Your task to perform on an android device: Search for razer huntsman on walmart.com, select the first entry, add it to the cart, then select checkout. Image 0: 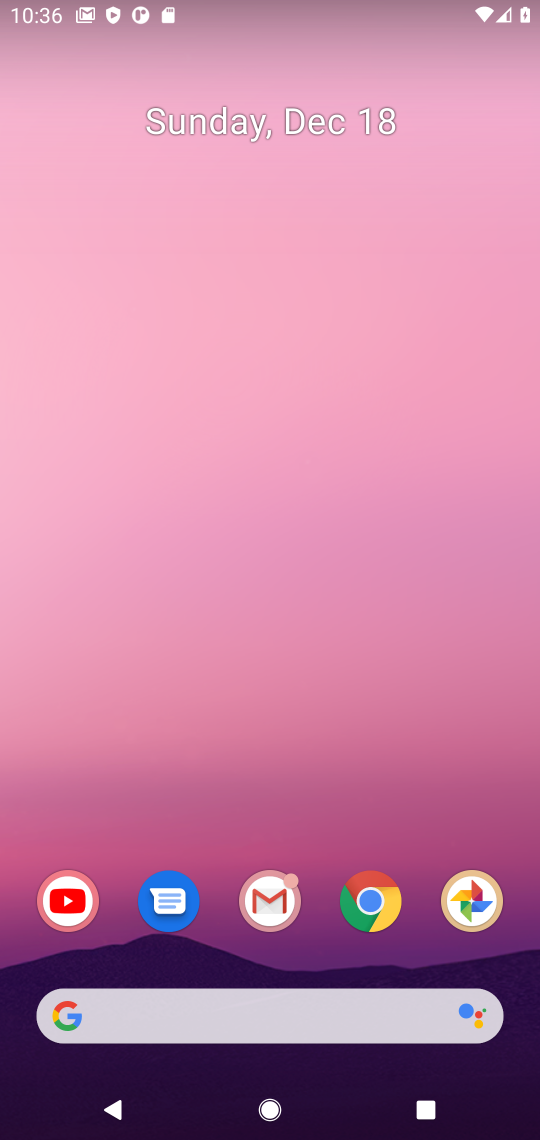
Step 0: click (358, 907)
Your task to perform on an android device: Search for razer huntsman on walmart.com, select the first entry, add it to the cart, then select checkout. Image 1: 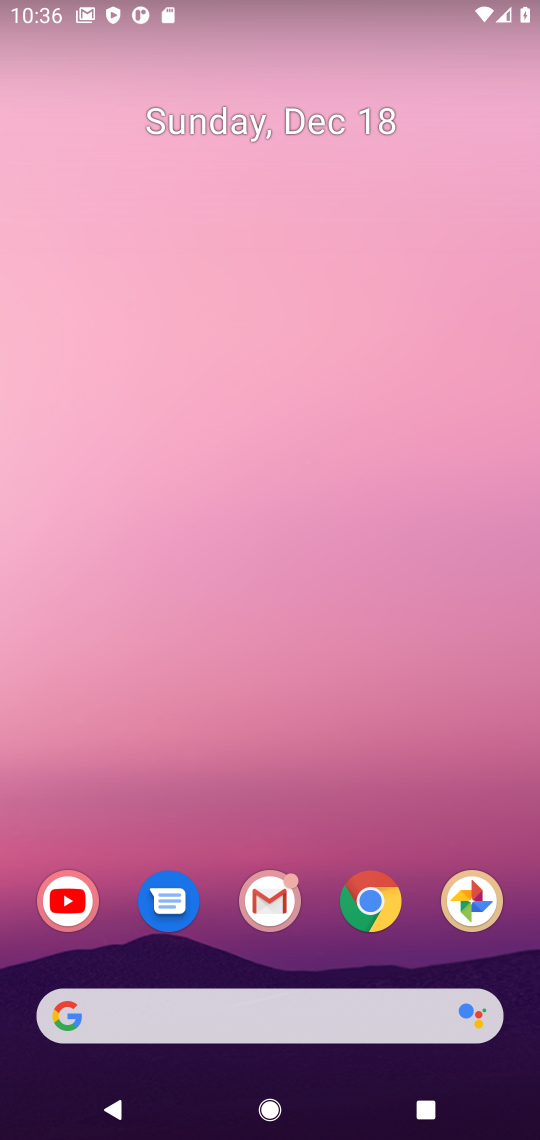
Step 1: click (358, 907)
Your task to perform on an android device: Search for razer huntsman on walmart.com, select the first entry, add it to the cart, then select checkout. Image 2: 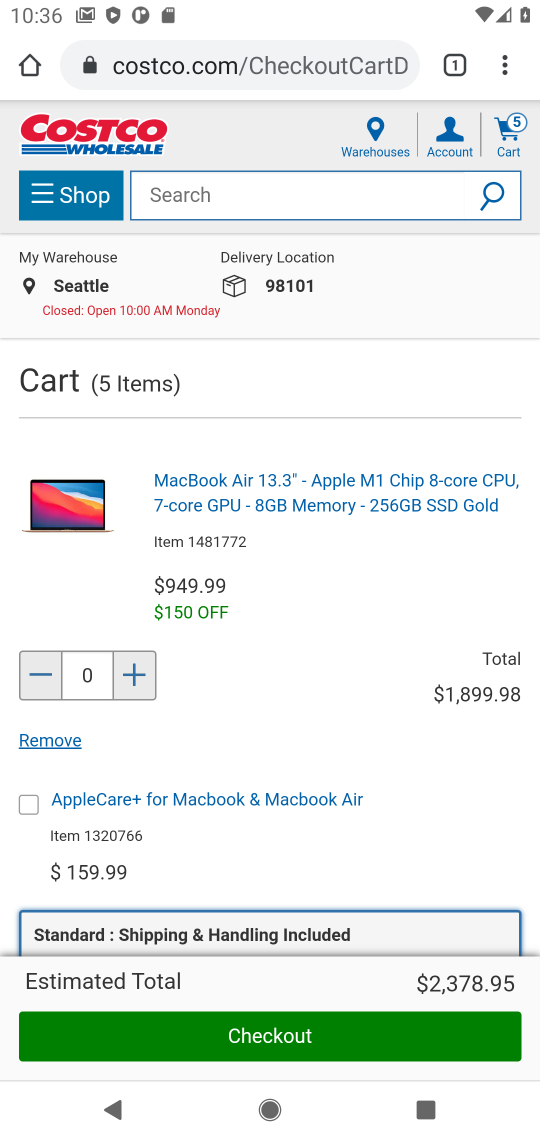
Step 2: click (277, 62)
Your task to perform on an android device: Search for razer huntsman on walmart.com, select the first entry, add it to the cart, then select checkout. Image 3: 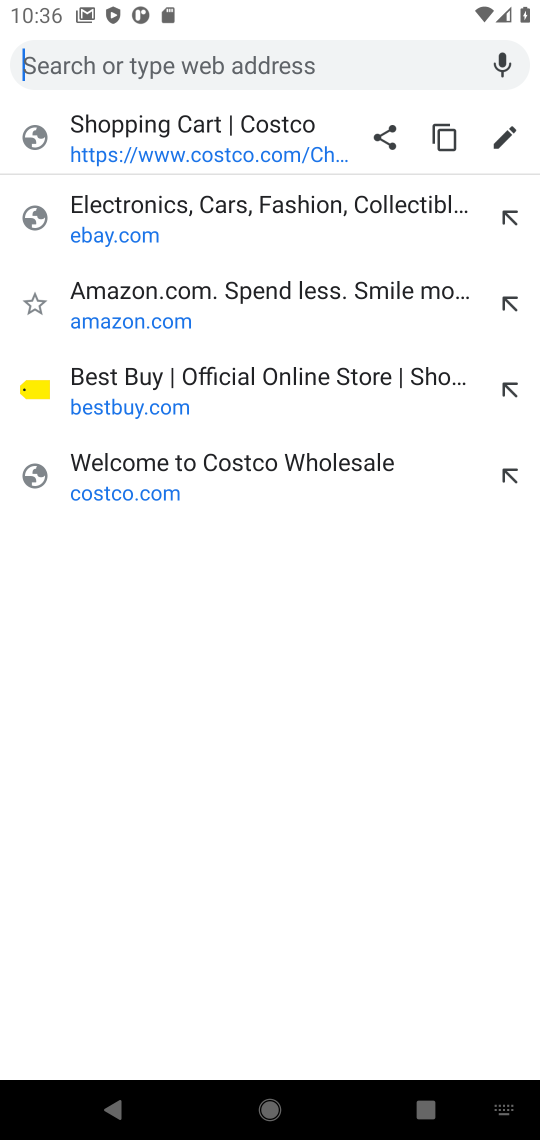
Step 3: click (154, 450)
Your task to perform on an android device: Search for razer huntsman on walmart.com, select the first entry, add it to the cart, then select checkout. Image 4: 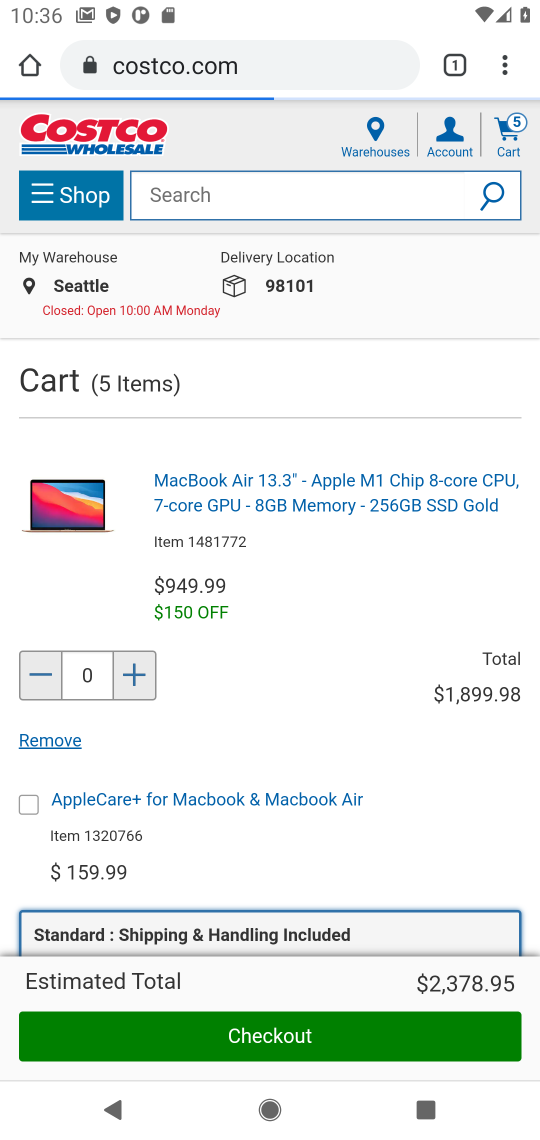
Step 4: click (301, 68)
Your task to perform on an android device: Search for razer huntsman on walmart.com, select the first entry, add it to the cart, then select checkout. Image 5: 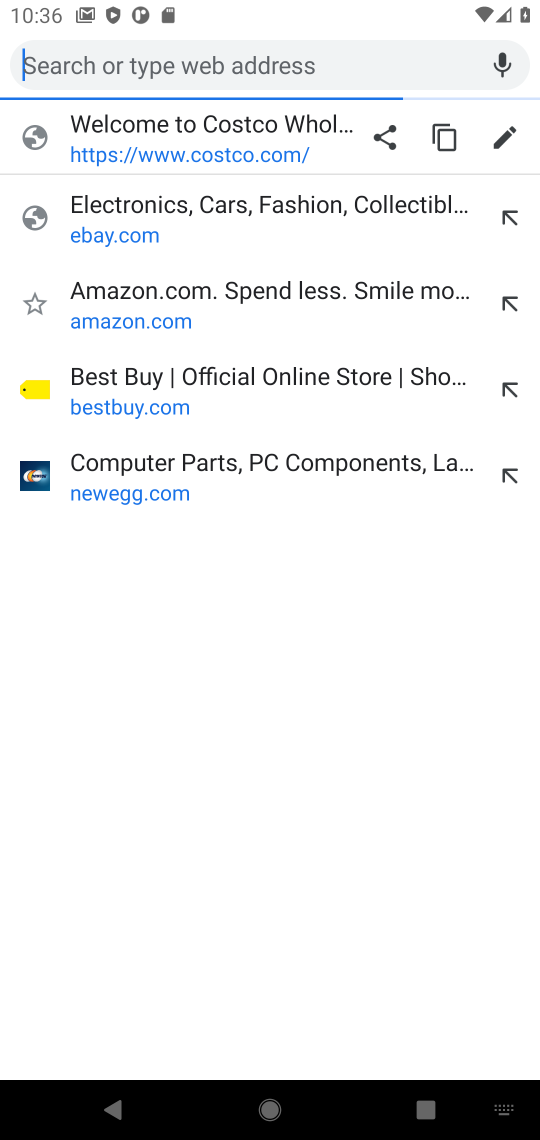
Step 5: type "walmart"
Your task to perform on an android device: Search for razer huntsman on walmart.com, select the first entry, add it to the cart, then select checkout. Image 6: 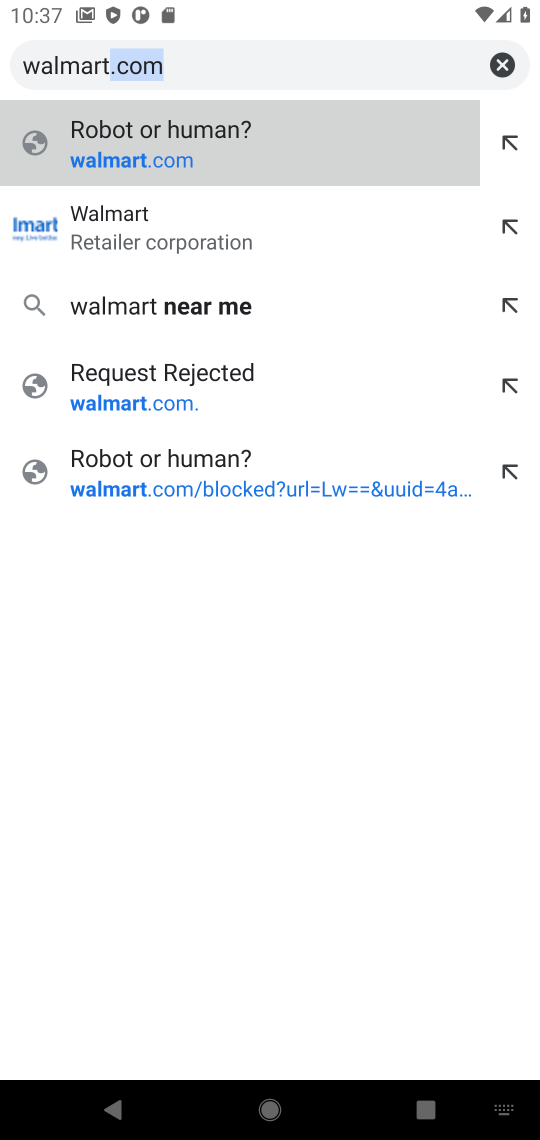
Step 6: click (165, 225)
Your task to perform on an android device: Search for razer huntsman on walmart.com, select the first entry, add it to the cart, then select checkout. Image 7: 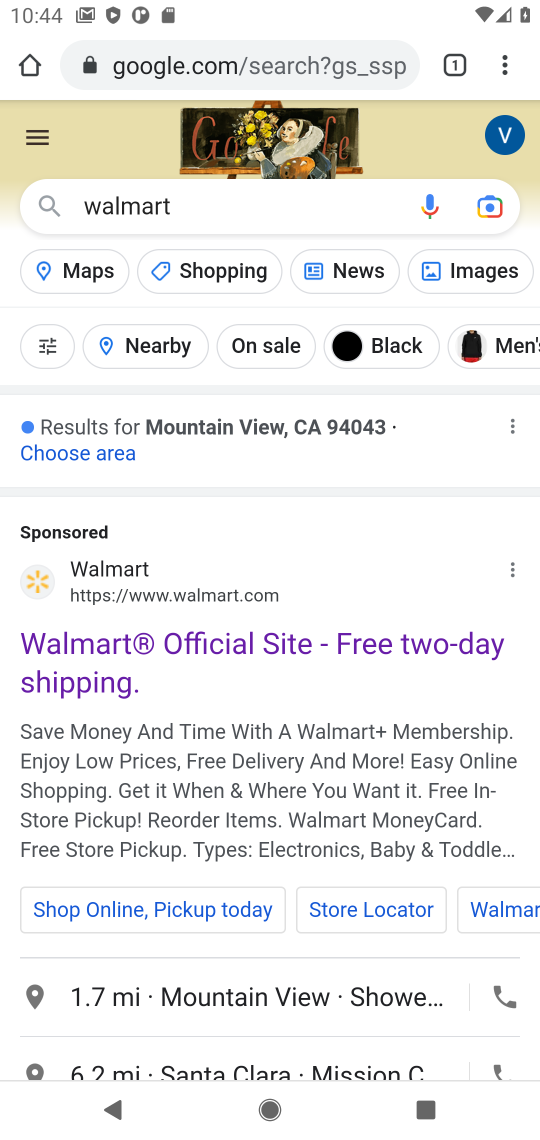
Step 7: press home button
Your task to perform on an android device: Search for razer huntsman on walmart.com, select the first entry, add it to the cart, then select checkout. Image 8: 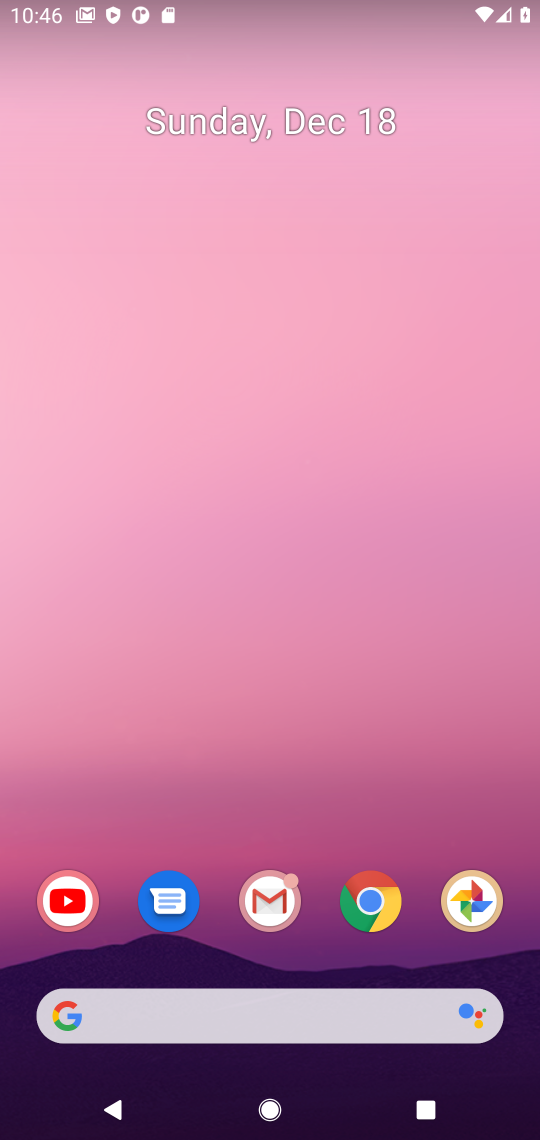
Step 8: click (371, 894)
Your task to perform on an android device: Search for razer huntsman on walmart.com, select the first entry, add it to the cart, then select checkout. Image 9: 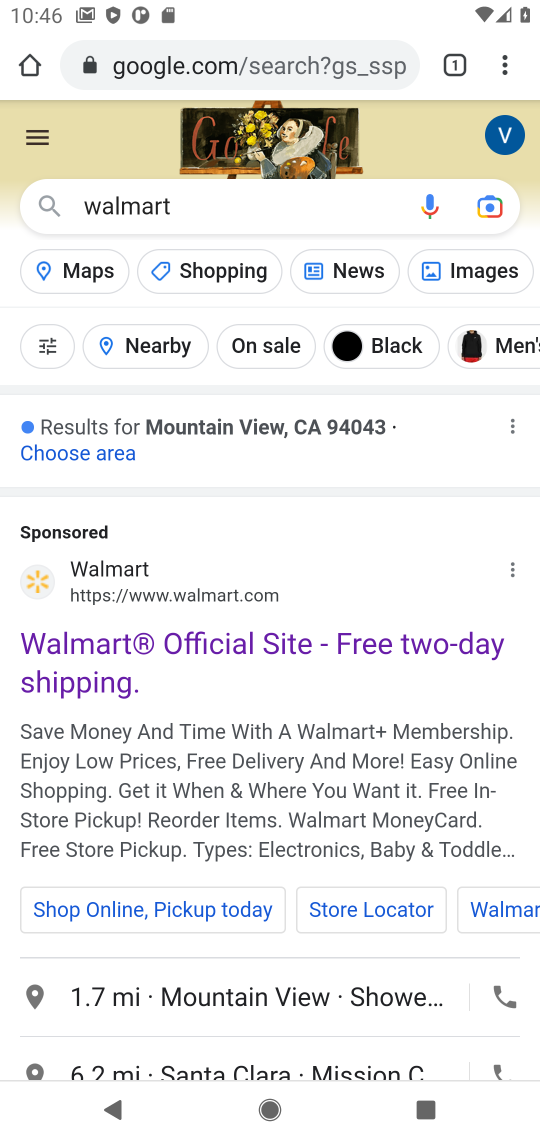
Step 9: click (312, 631)
Your task to perform on an android device: Search for razer huntsman on walmart.com, select the first entry, add it to the cart, then select checkout. Image 10: 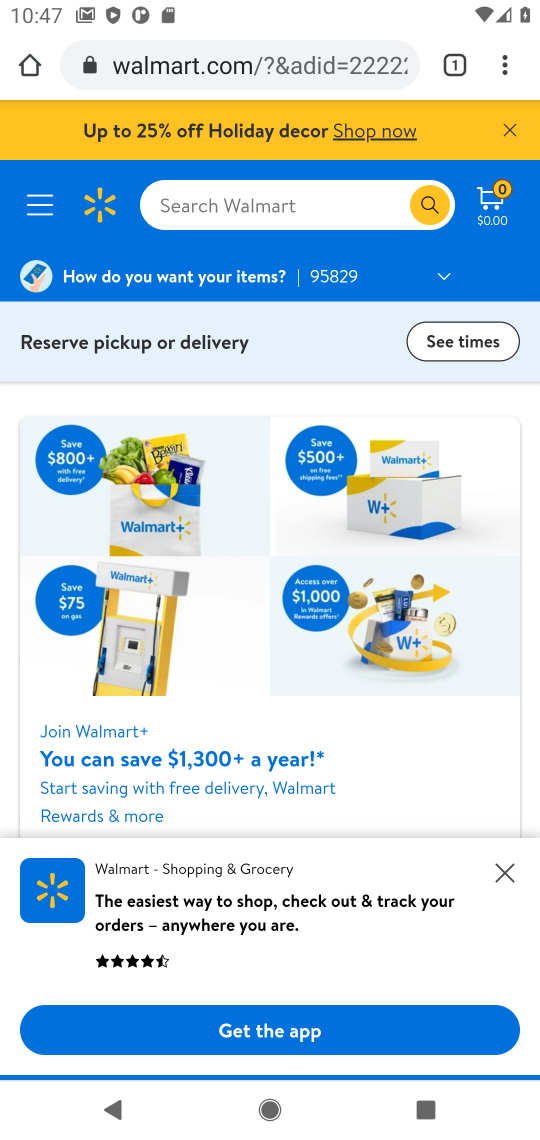
Step 10: task complete